Your task to perform on an android device: turn notification dots on Image 0: 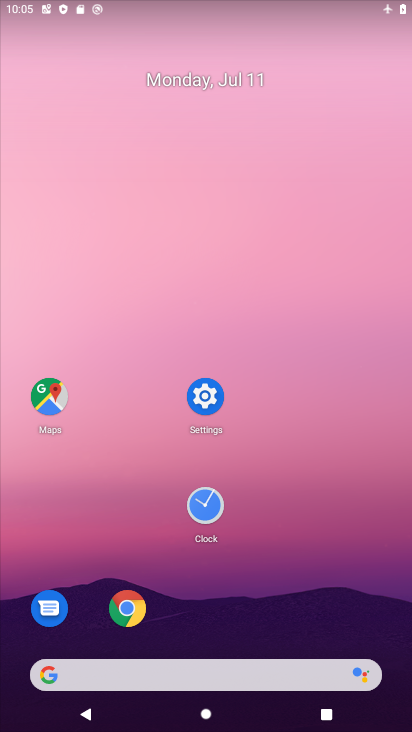
Step 0: drag from (394, 702) to (393, 70)
Your task to perform on an android device: turn notification dots on Image 1: 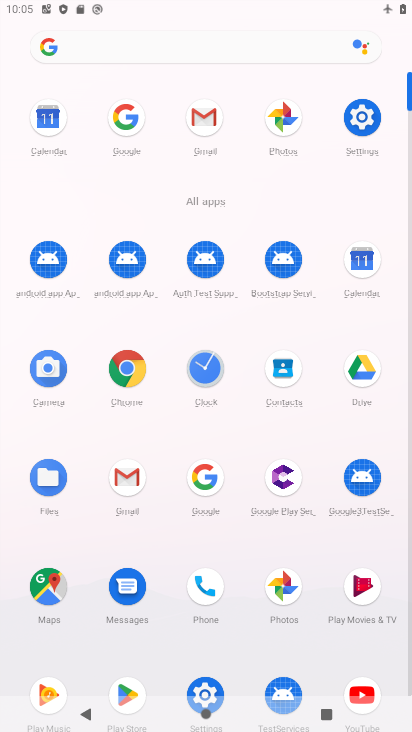
Step 1: click (363, 117)
Your task to perform on an android device: turn notification dots on Image 2: 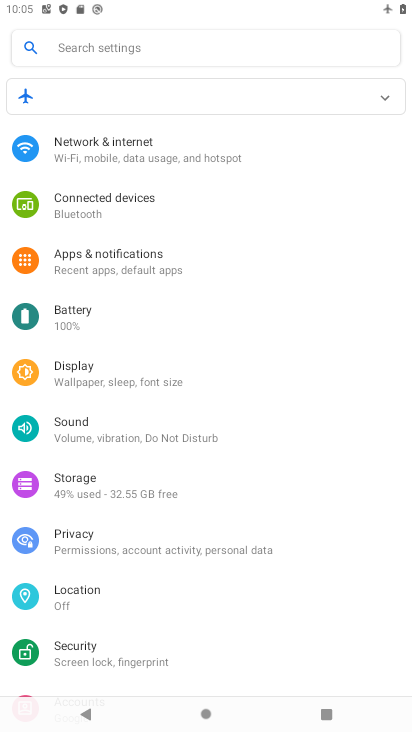
Step 2: click (112, 265)
Your task to perform on an android device: turn notification dots on Image 3: 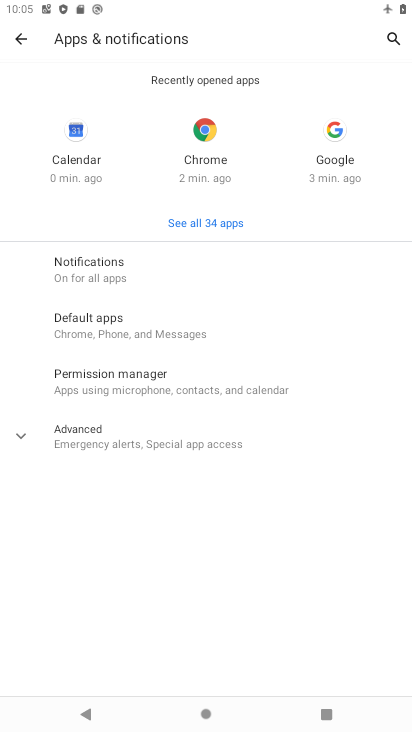
Step 3: click (79, 253)
Your task to perform on an android device: turn notification dots on Image 4: 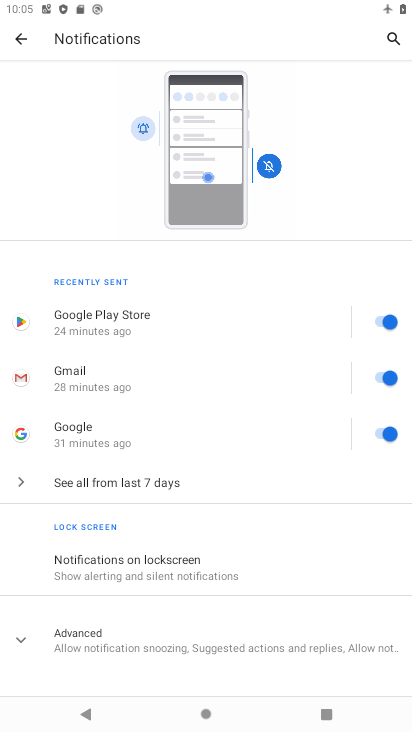
Step 4: click (25, 643)
Your task to perform on an android device: turn notification dots on Image 5: 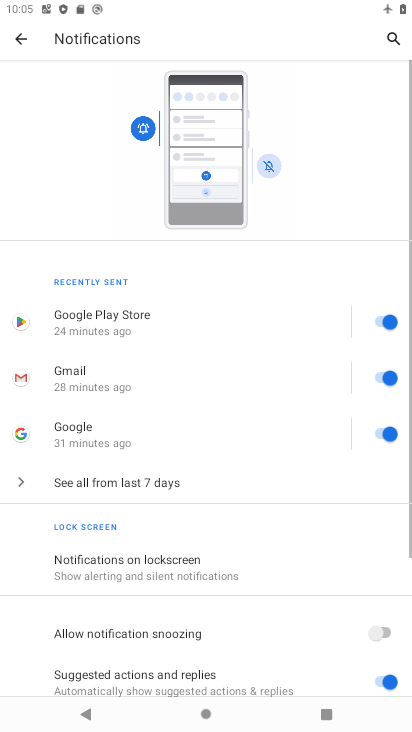
Step 5: drag from (259, 623) to (297, 265)
Your task to perform on an android device: turn notification dots on Image 6: 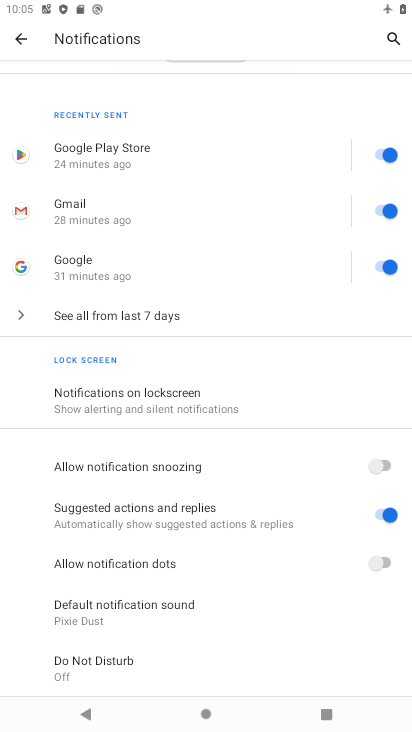
Step 6: click (378, 564)
Your task to perform on an android device: turn notification dots on Image 7: 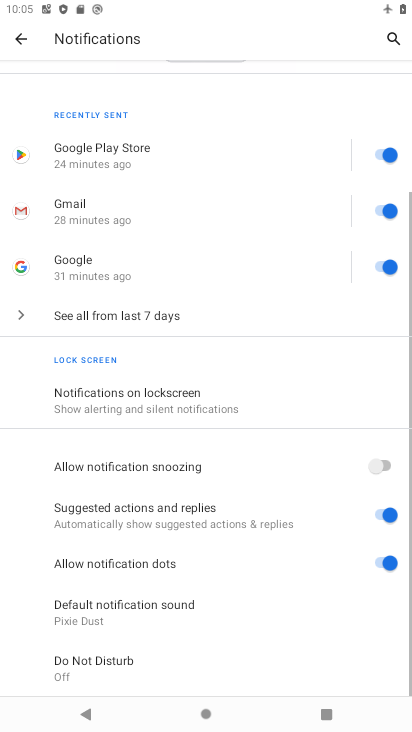
Step 7: task complete